Your task to perform on an android device: turn off translation in the chrome app Image 0: 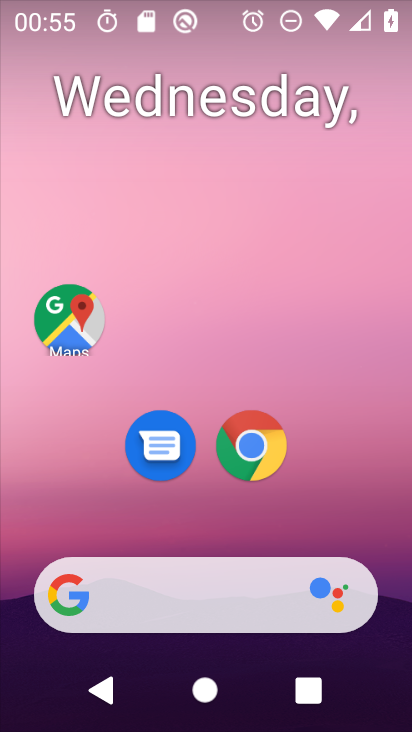
Step 0: click (245, 449)
Your task to perform on an android device: turn off translation in the chrome app Image 1: 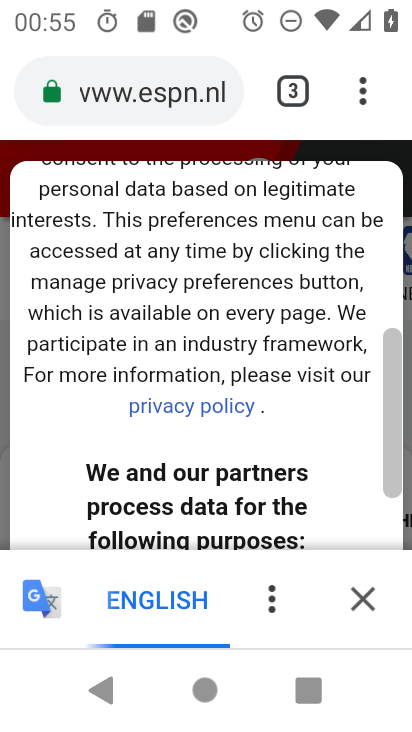
Step 1: click (360, 92)
Your task to perform on an android device: turn off translation in the chrome app Image 2: 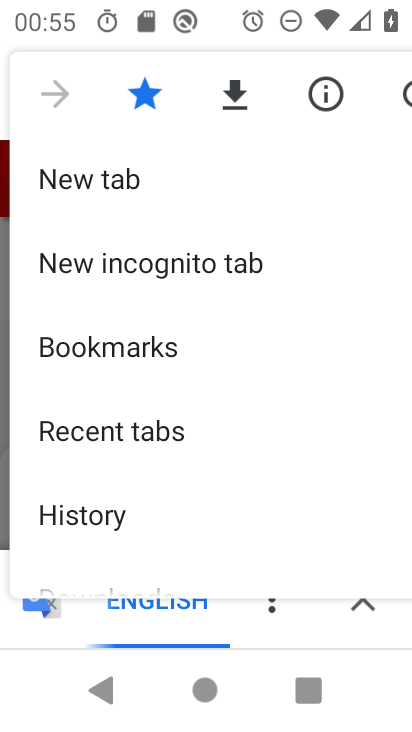
Step 2: drag from (159, 519) to (184, 176)
Your task to perform on an android device: turn off translation in the chrome app Image 3: 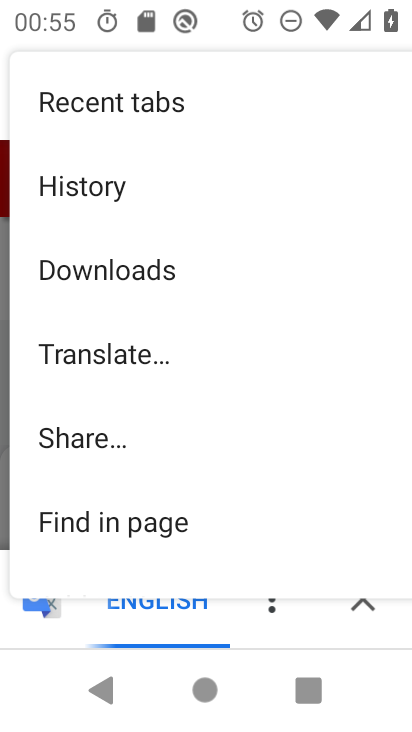
Step 3: drag from (161, 508) to (214, 141)
Your task to perform on an android device: turn off translation in the chrome app Image 4: 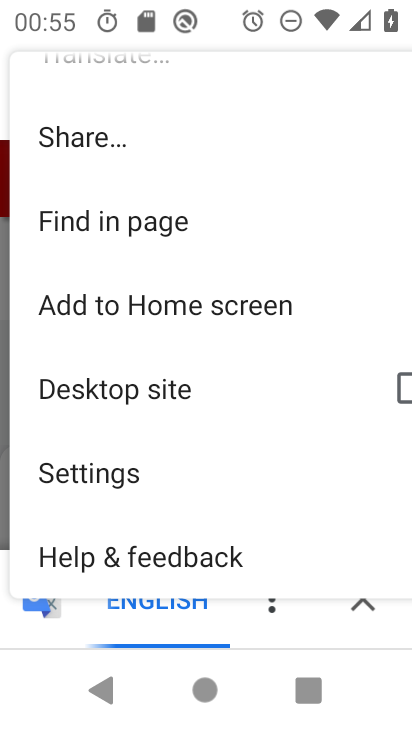
Step 4: click (144, 461)
Your task to perform on an android device: turn off translation in the chrome app Image 5: 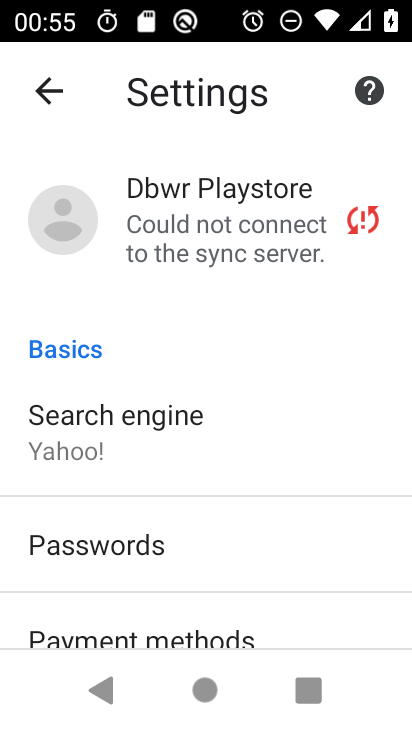
Step 5: drag from (183, 577) to (200, 310)
Your task to perform on an android device: turn off translation in the chrome app Image 6: 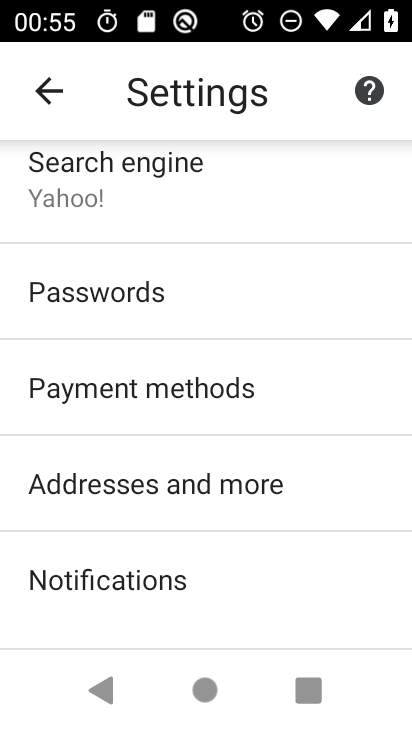
Step 6: drag from (157, 590) to (201, 279)
Your task to perform on an android device: turn off translation in the chrome app Image 7: 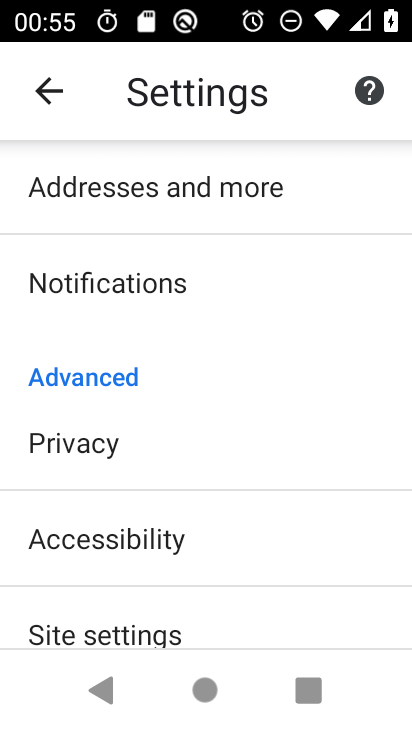
Step 7: drag from (158, 556) to (241, 283)
Your task to perform on an android device: turn off translation in the chrome app Image 8: 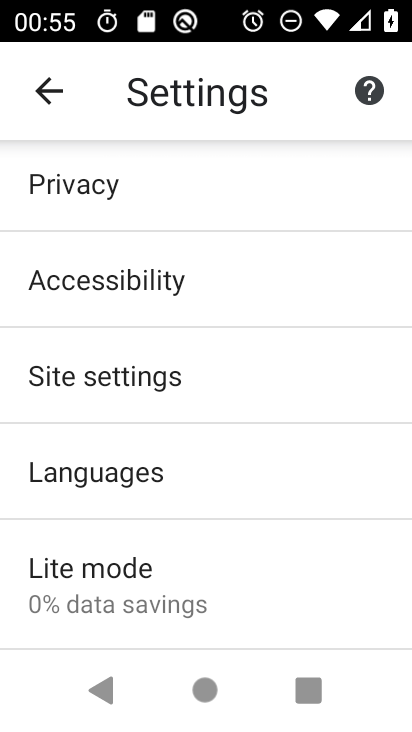
Step 8: click (221, 481)
Your task to perform on an android device: turn off translation in the chrome app Image 9: 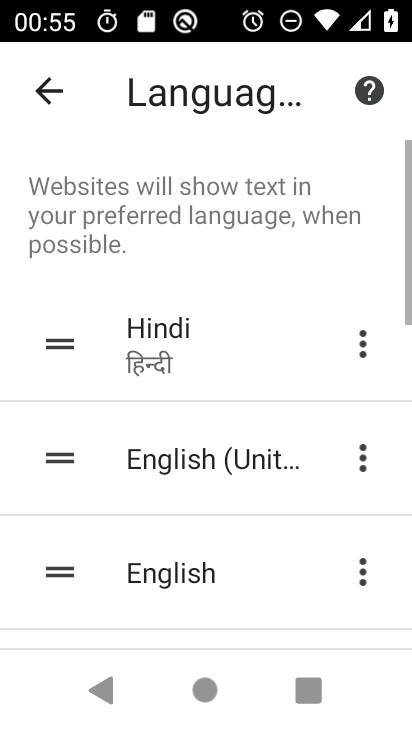
Step 9: drag from (230, 566) to (279, 59)
Your task to perform on an android device: turn off translation in the chrome app Image 10: 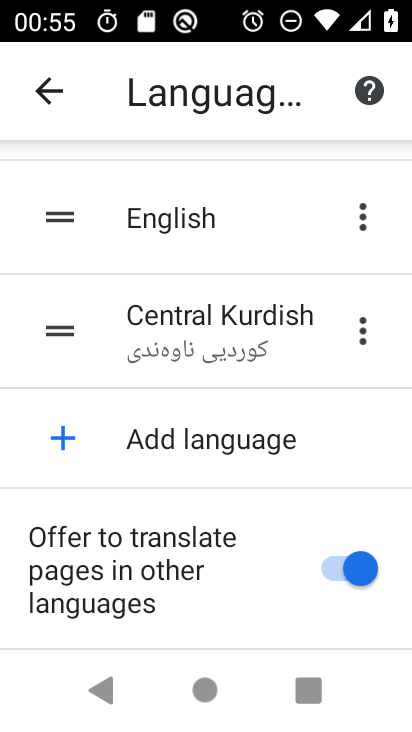
Step 10: click (348, 582)
Your task to perform on an android device: turn off translation in the chrome app Image 11: 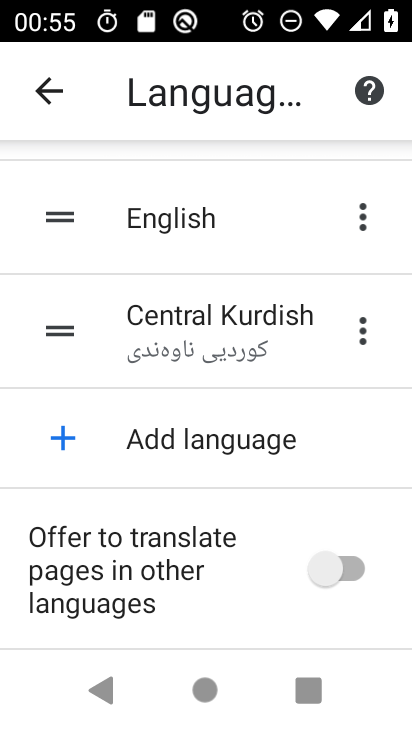
Step 11: task complete